Your task to perform on an android device: Go to Maps Image 0: 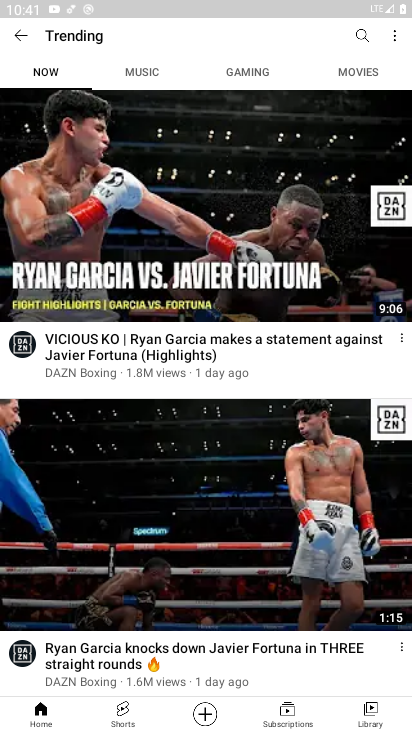
Step 0: press home button
Your task to perform on an android device: Go to Maps Image 1: 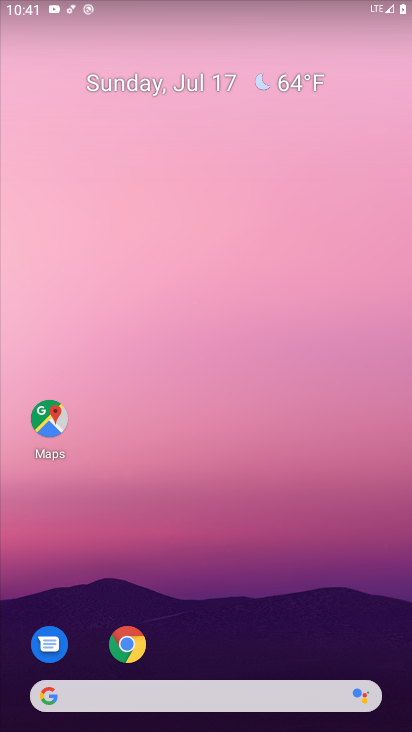
Step 1: click (40, 411)
Your task to perform on an android device: Go to Maps Image 2: 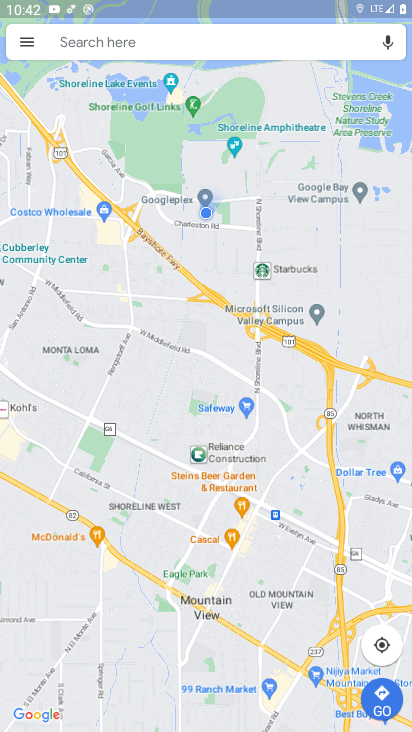
Step 2: task complete